Your task to perform on an android device: turn off airplane mode Image 0: 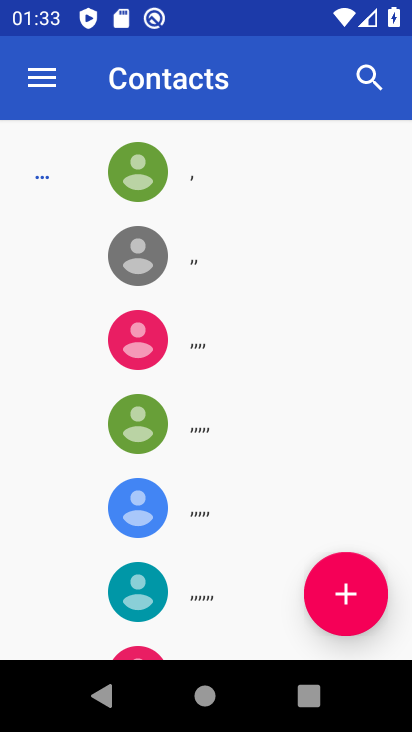
Step 0: drag from (373, 10) to (354, 701)
Your task to perform on an android device: turn off airplane mode Image 1: 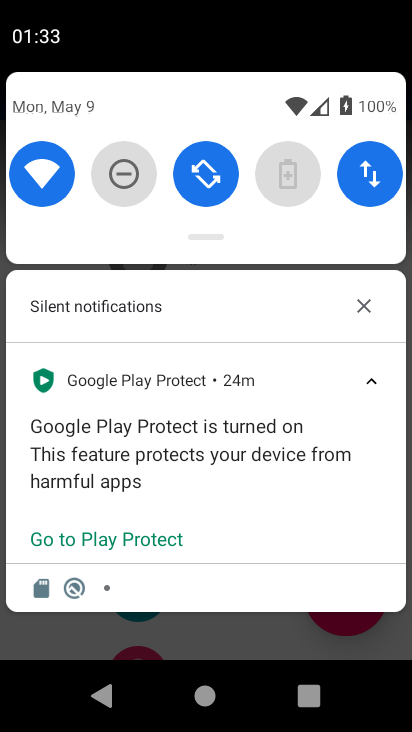
Step 1: task complete